Your task to perform on an android device: What's on my calendar tomorrow? Image 0: 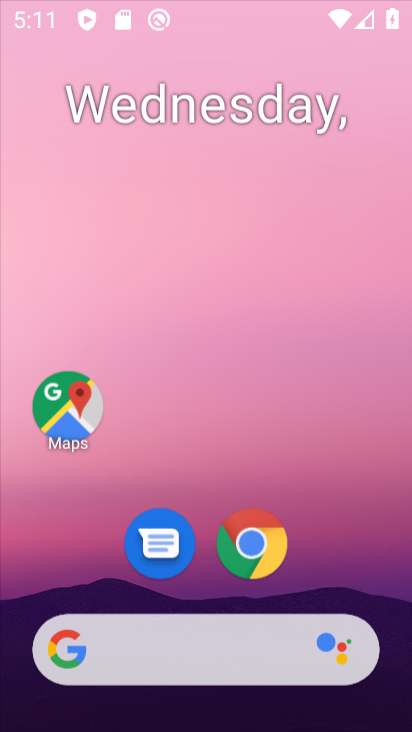
Step 0: drag from (209, 562) to (272, 67)
Your task to perform on an android device: What's on my calendar tomorrow? Image 1: 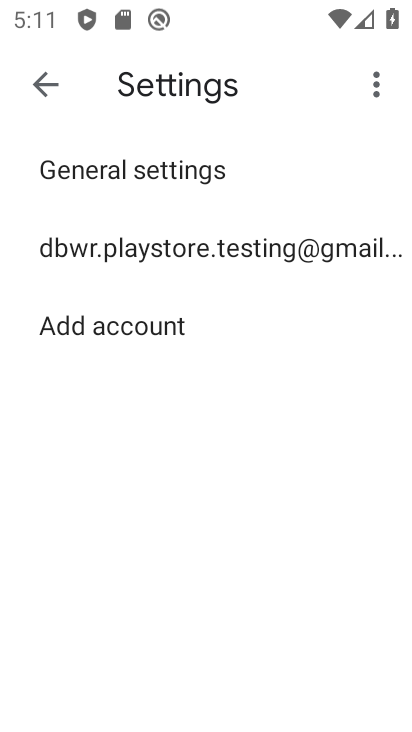
Step 1: press back button
Your task to perform on an android device: What's on my calendar tomorrow? Image 2: 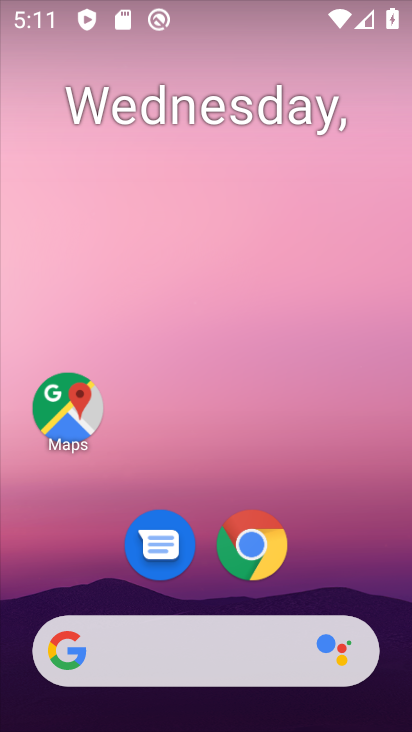
Step 2: drag from (175, 580) to (229, 121)
Your task to perform on an android device: What's on my calendar tomorrow? Image 3: 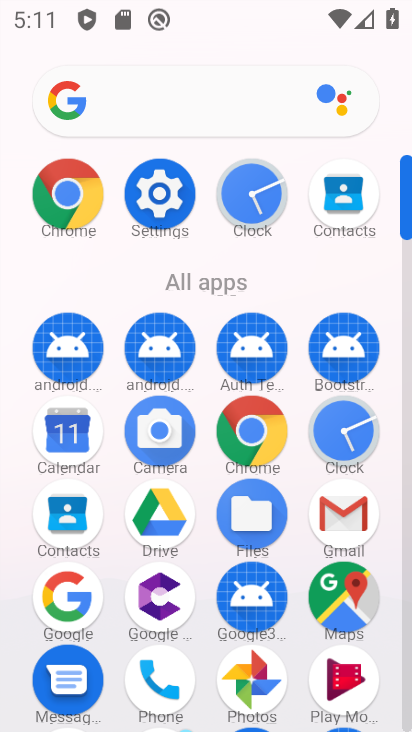
Step 3: click (63, 428)
Your task to perform on an android device: What's on my calendar tomorrow? Image 4: 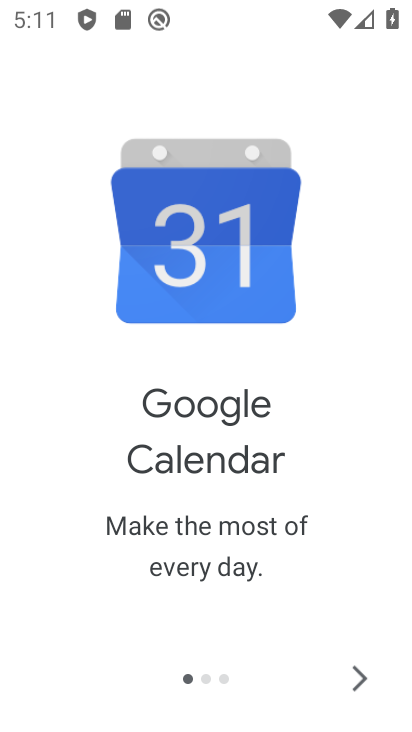
Step 4: click (349, 660)
Your task to perform on an android device: What's on my calendar tomorrow? Image 5: 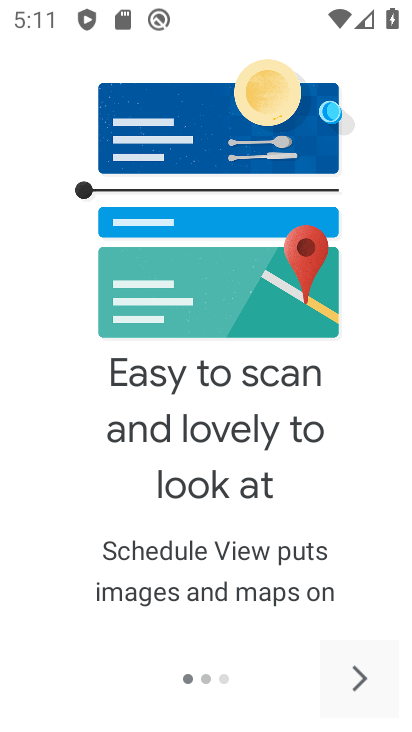
Step 5: click (349, 660)
Your task to perform on an android device: What's on my calendar tomorrow? Image 6: 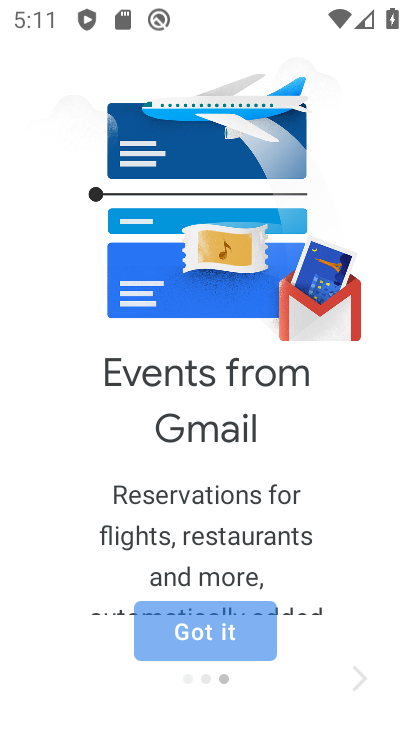
Step 6: click (349, 660)
Your task to perform on an android device: What's on my calendar tomorrow? Image 7: 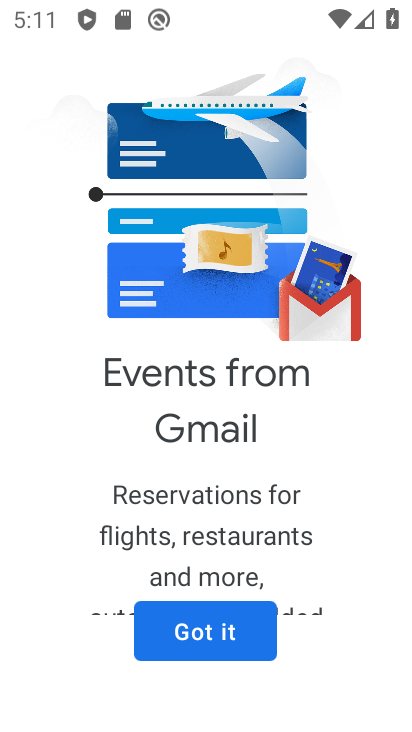
Step 7: click (207, 640)
Your task to perform on an android device: What's on my calendar tomorrow? Image 8: 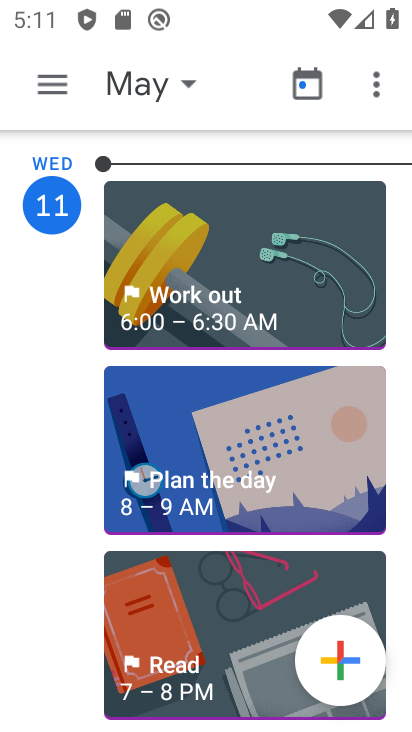
Step 8: drag from (228, 621) to (298, 140)
Your task to perform on an android device: What's on my calendar tomorrow? Image 9: 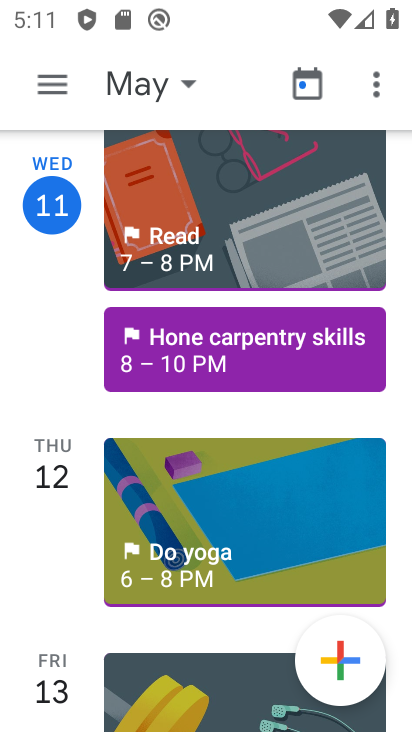
Step 9: click (241, 486)
Your task to perform on an android device: What's on my calendar tomorrow? Image 10: 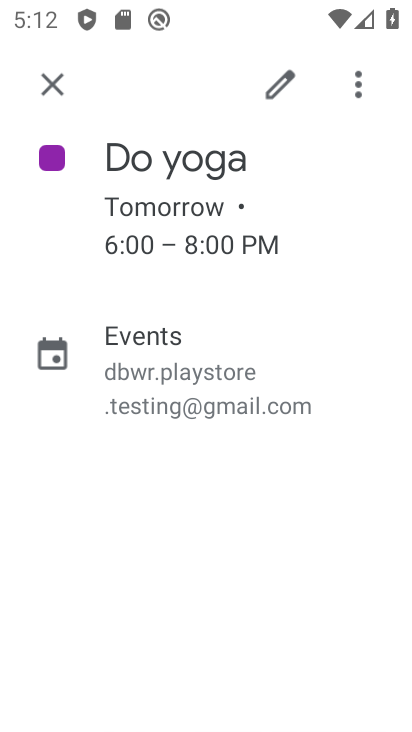
Step 10: task complete